Your task to perform on an android device: search for starred emails in the gmail app Image 0: 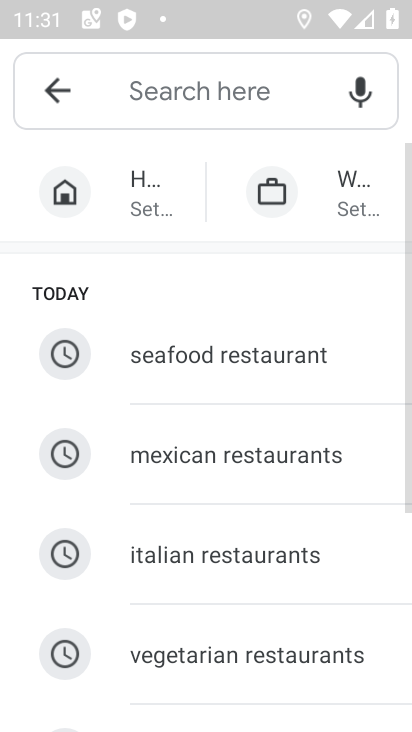
Step 0: click (46, 90)
Your task to perform on an android device: search for starred emails in the gmail app Image 1: 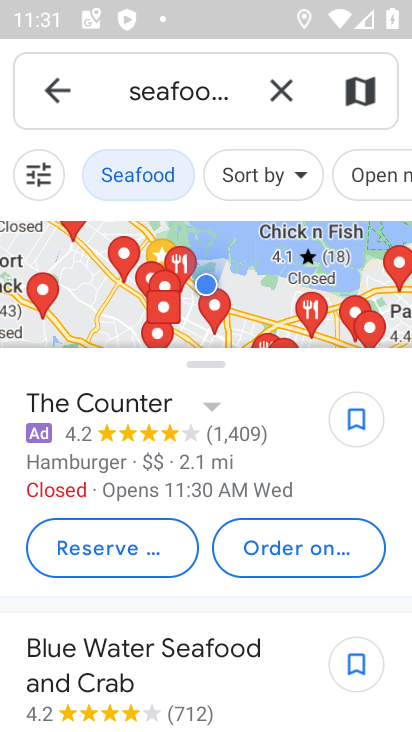
Step 1: press back button
Your task to perform on an android device: search for starred emails in the gmail app Image 2: 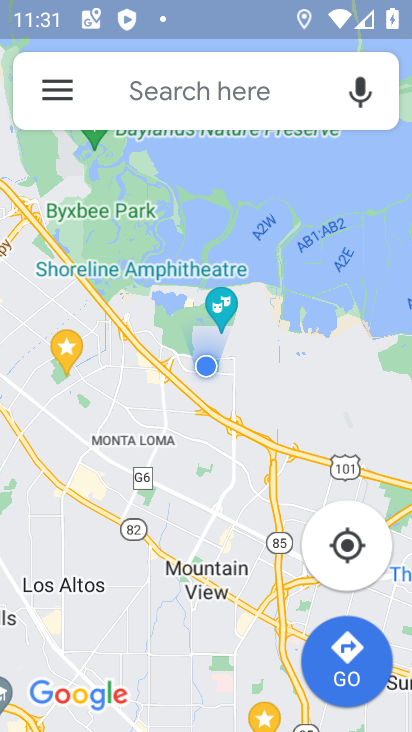
Step 2: press back button
Your task to perform on an android device: search for starred emails in the gmail app Image 3: 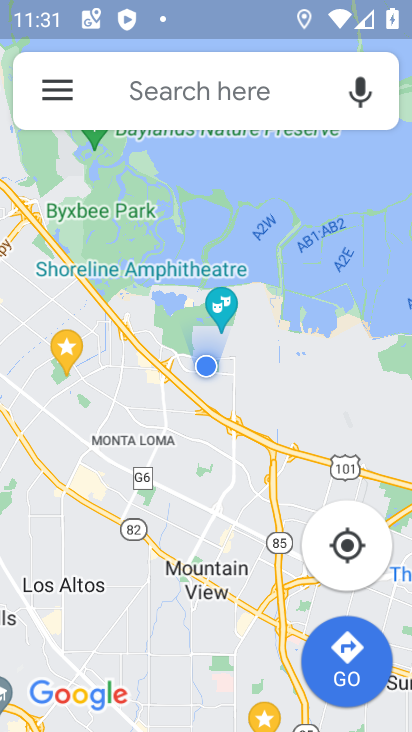
Step 3: press back button
Your task to perform on an android device: search for starred emails in the gmail app Image 4: 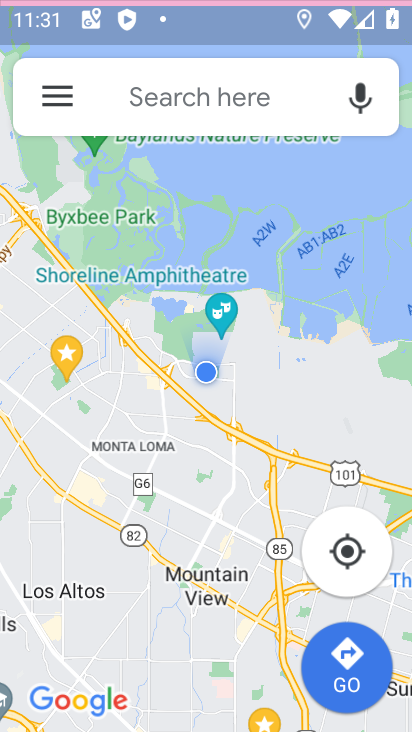
Step 4: press home button
Your task to perform on an android device: search for starred emails in the gmail app Image 5: 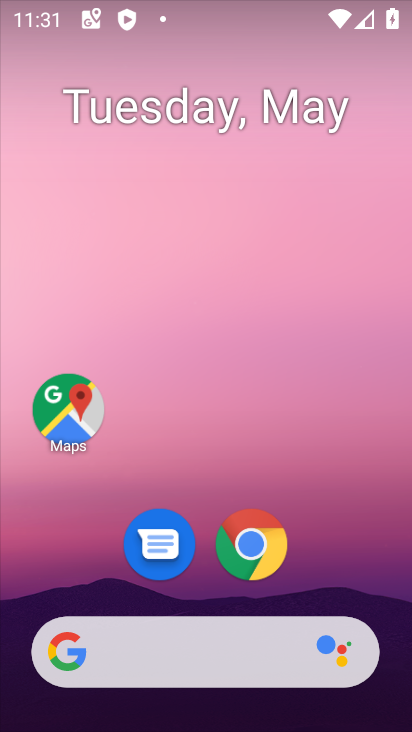
Step 5: press home button
Your task to perform on an android device: search for starred emails in the gmail app Image 6: 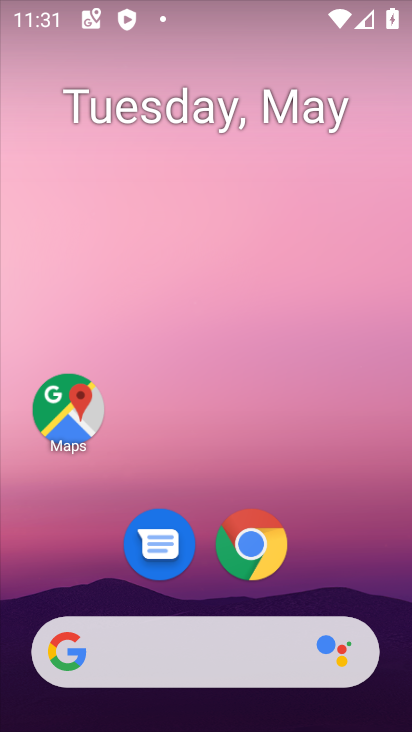
Step 6: drag from (334, 613) to (114, 63)
Your task to perform on an android device: search for starred emails in the gmail app Image 7: 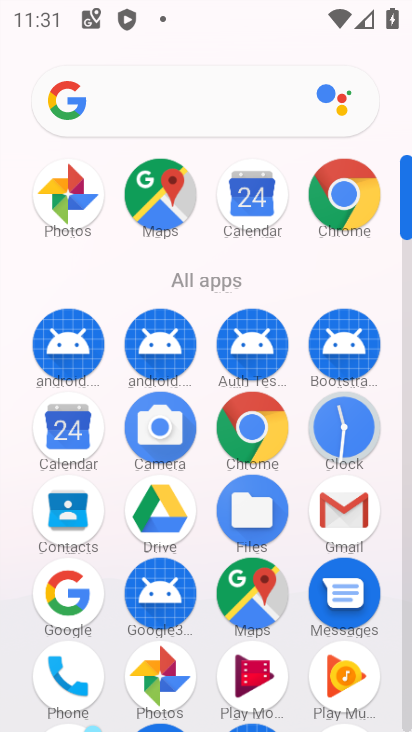
Step 7: click (339, 505)
Your task to perform on an android device: search for starred emails in the gmail app Image 8: 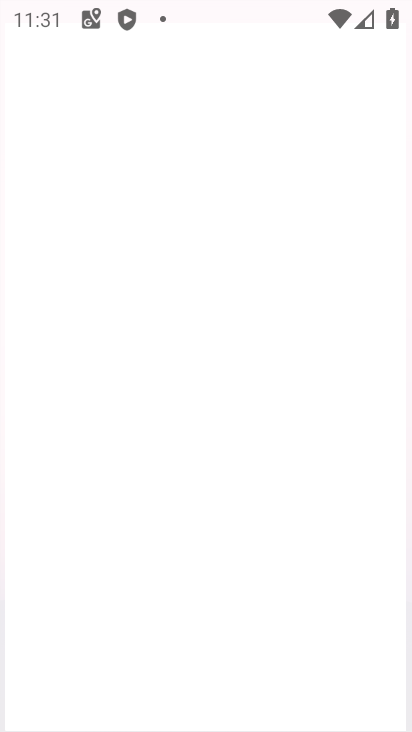
Step 8: click (345, 501)
Your task to perform on an android device: search for starred emails in the gmail app Image 9: 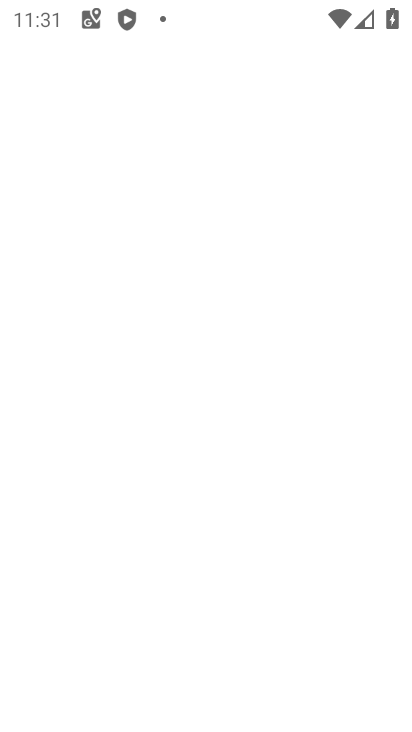
Step 9: click (345, 501)
Your task to perform on an android device: search for starred emails in the gmail app Image 10: 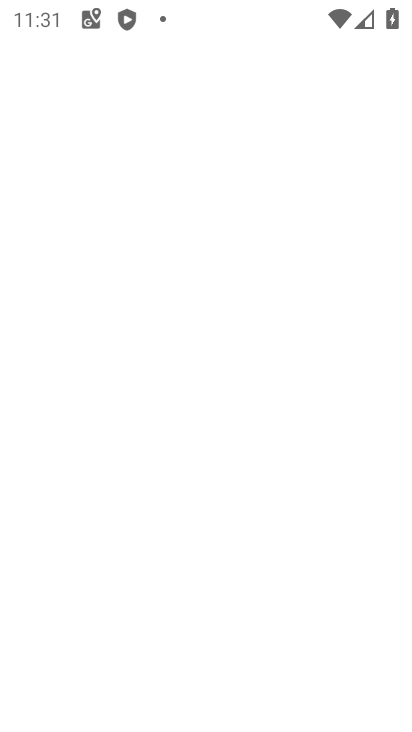
Step 10: click (345, 501)
Your task to perform on an android device: search for starred emails in the gmail app Image 11: 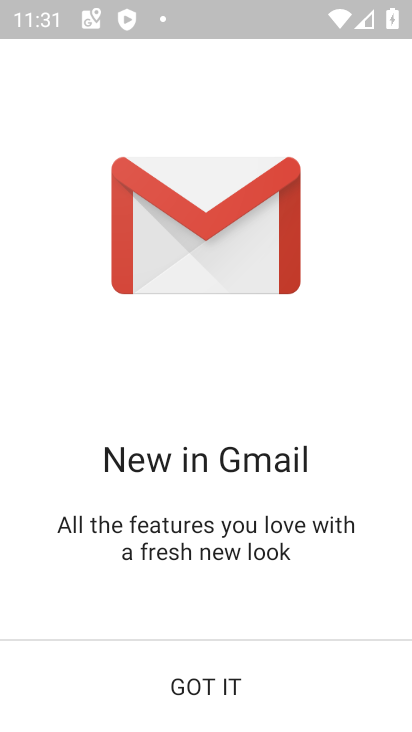
Step 11: click (207, 685)
Your task to perform on an android device: search for starred emails in the gmail app Image 12: 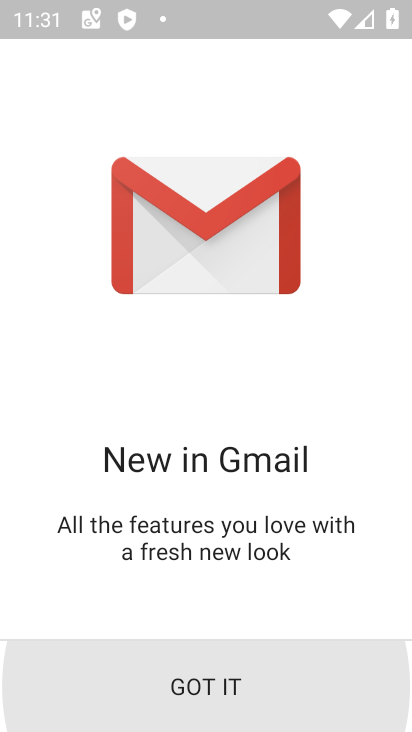
Step 12: click (206, 684)
Your task to perform on an android device: search for starred emails in the gmail app Image 13: 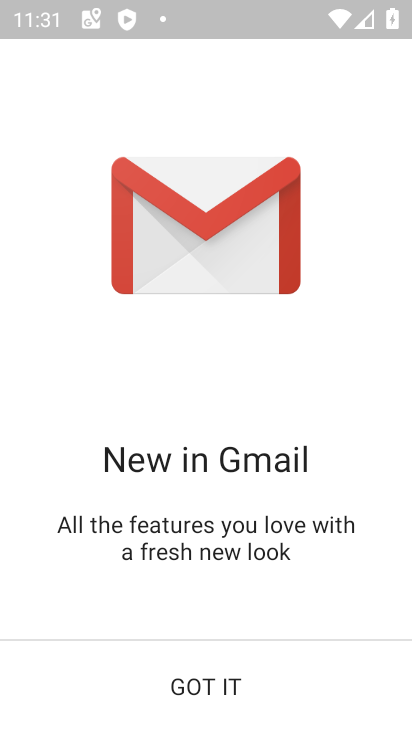
Step 13: click (211, 684)
Your task to perform on an android device: search for starred emails in the gmail app Image 14: 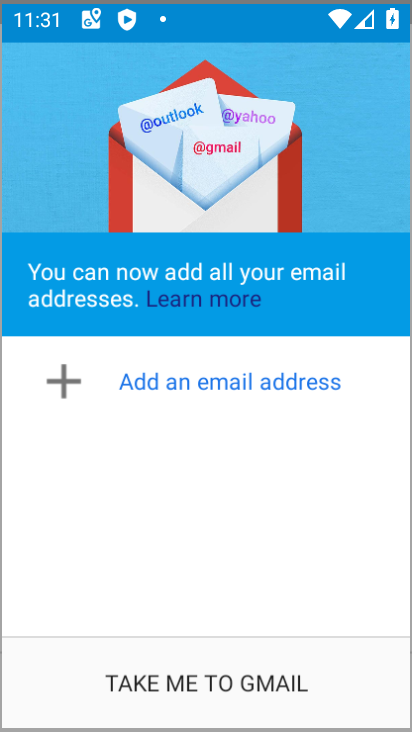
Step 14: click (211, 684)
Your task to perform on an android device: search for starred emails in the gmail app Image 15: 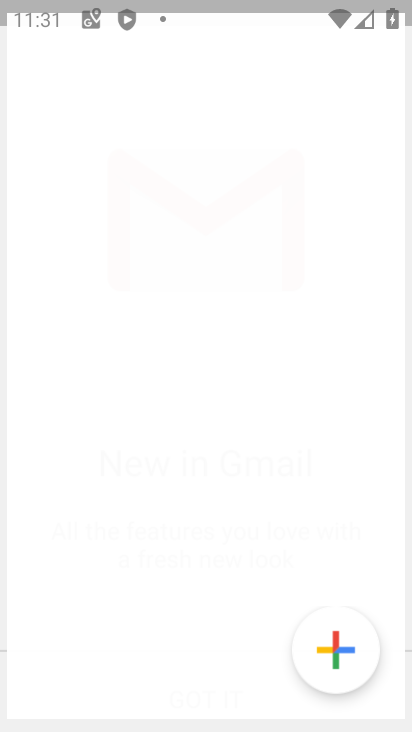
Step 15: click (211, 684)
Your task to perform on an android device: search for starred emails in the gmail app Image 16: 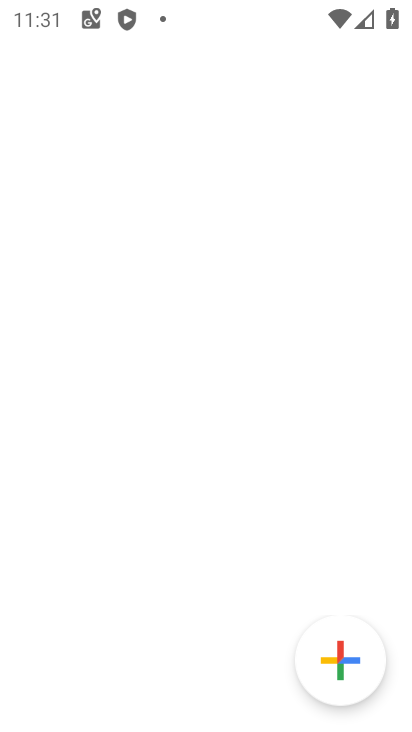
Step 16: click (211, 684)
Your task to perform on an android device: search for starred emails in the gmail app Image 17: 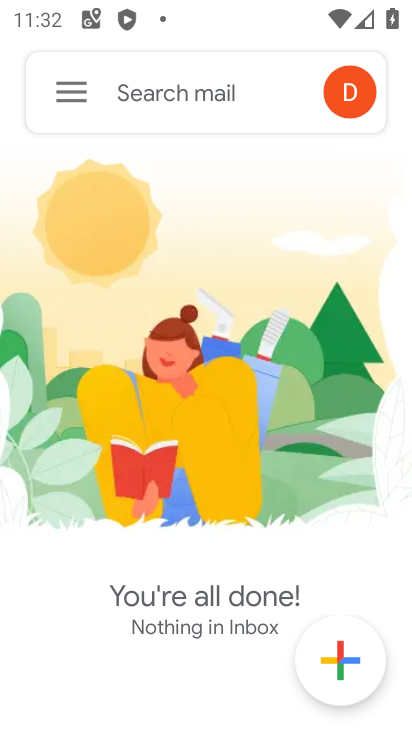
Step 17: press back button
Your task to perform on an android device: search for starred emails in the gmail app Image 18: 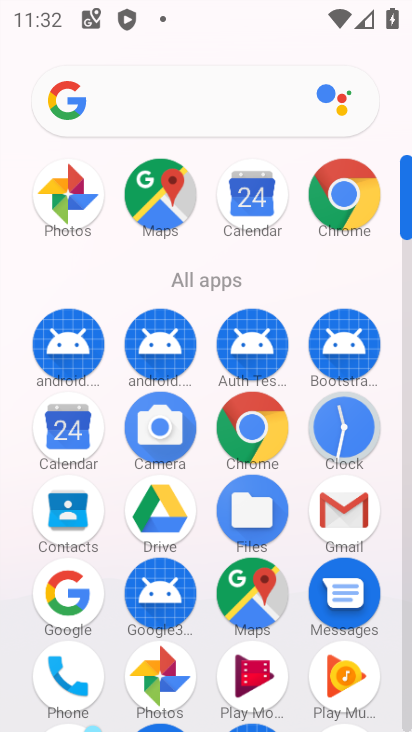
Step 18: click (333, 504)
Your task to perform on an android device: search for starred emails in the gmail app Image 19: 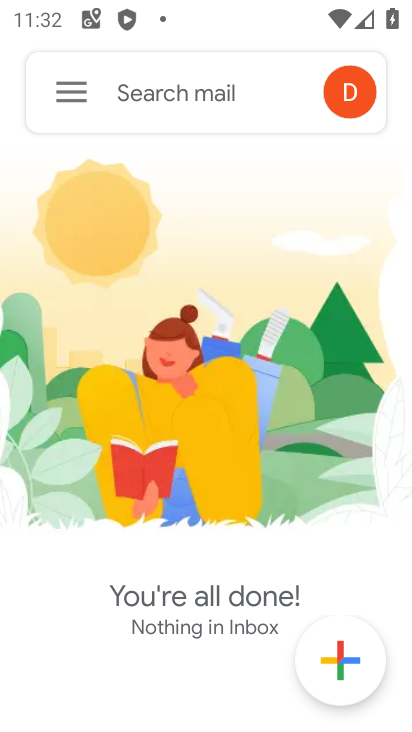
Step 19: click (336, 499)
Your task to perform on an android device: search for starred emails in the gmail app Image 20: 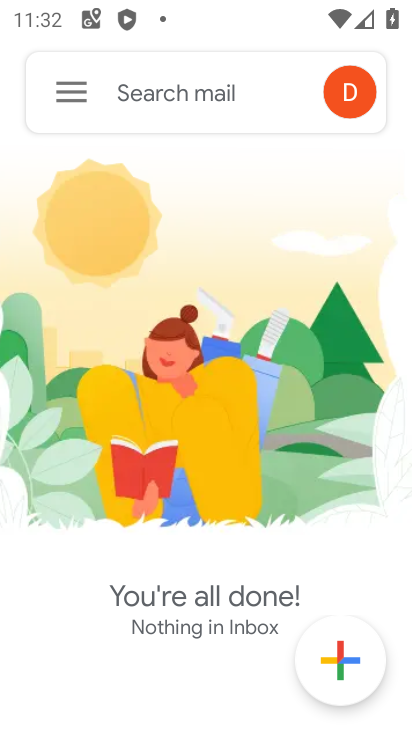
Step 20: press back button
Your task to perform on an android device: search for starred emails in the gmail app Image 21: 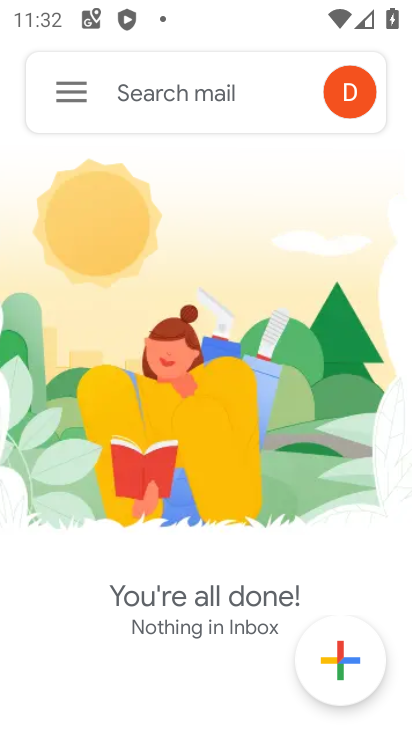
Step 21: press back button
Your task to perform on an android device: search for starred emails in the gmail app Image 22: 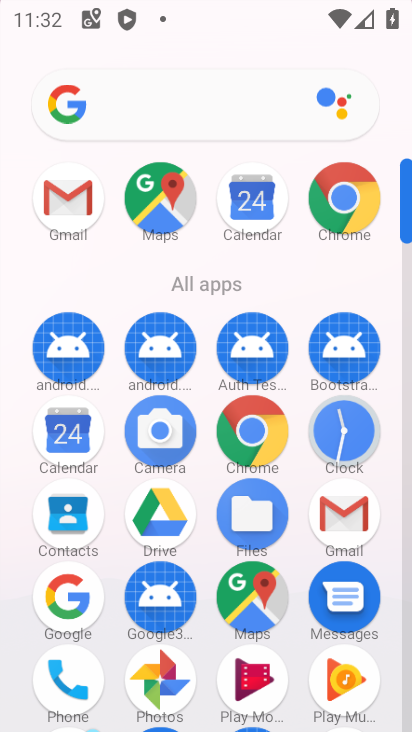
Step 22: press back button
Your task to perform on an android device: search for starred emails in the gmail app Image 23: 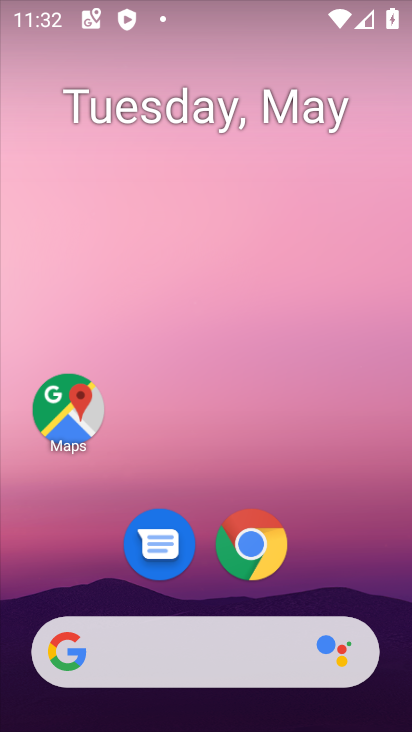
Step 23: drag from (340, 510) to (242, 47)
Your task to perform on an android device: search for starred emails in the gmail app Image 24: 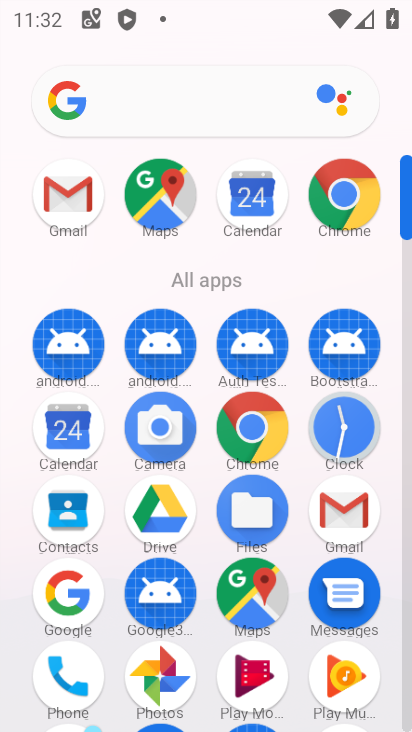
Step 24: click (342, 511)
Your task to perform on an android device: search for starred emails in the gmail app Image 25: 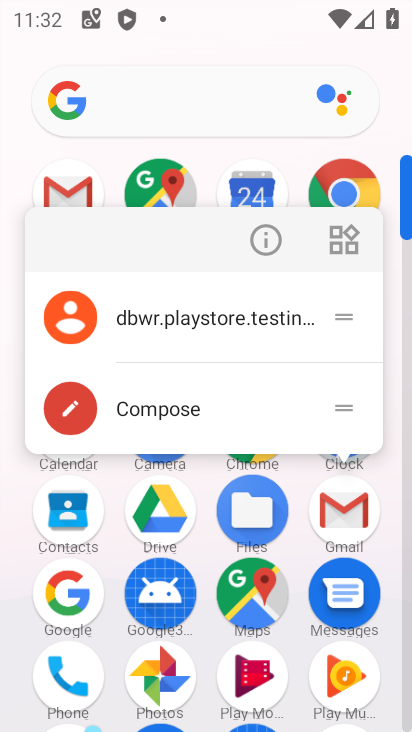
Step 25: click (345, 504)
Your task to perform on an android device: search for starred emails in the gmail app Image 26: 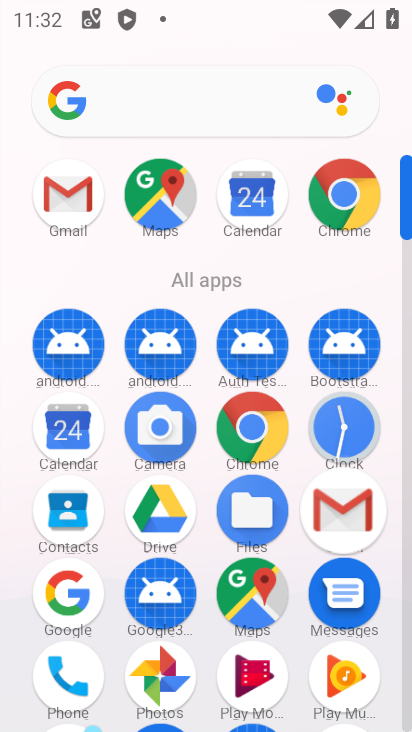
Step 26: click (345, 504)
Your task to perform on an android device: search for starred emails in the gmail app Image 27: 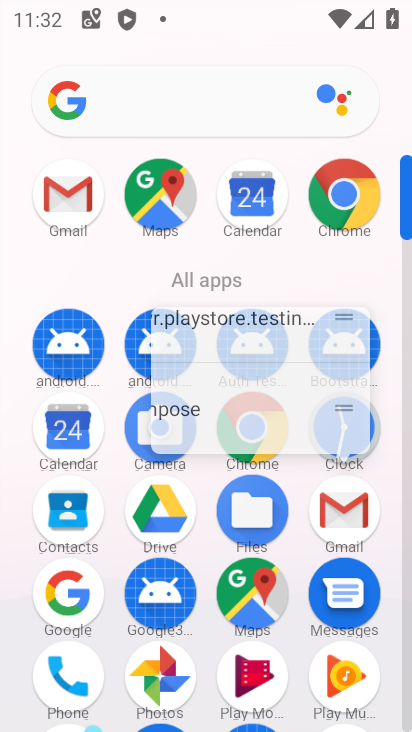
Step 27: click (345, 504)
Your task to perform on an android device: search for starred emails in the gmail app Image 28: 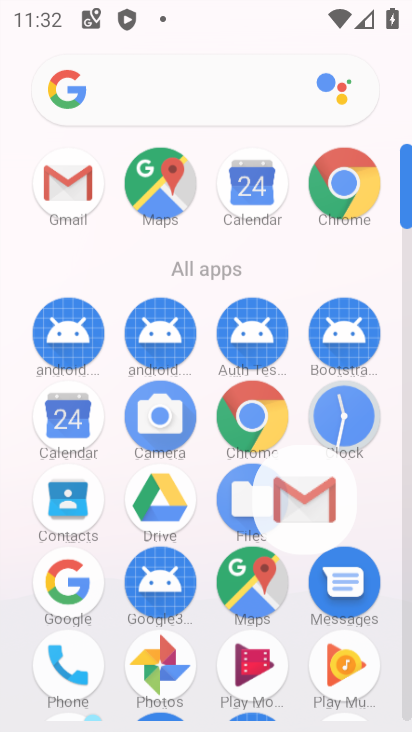
Step 28: click (346, 504)
Your task to perform on an android device: search for starred emails in the gmail app Image 29: 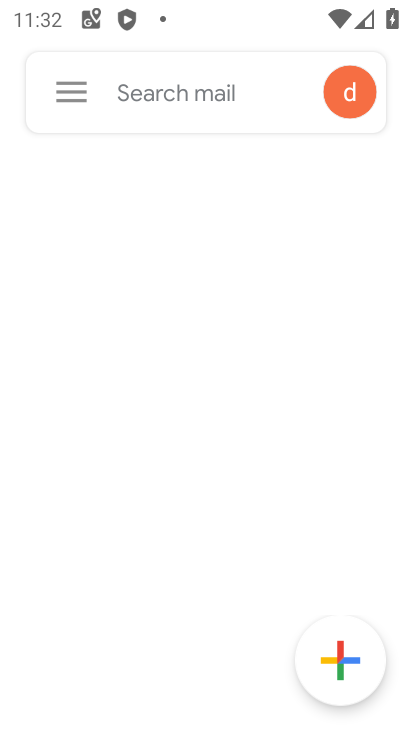
Step 29: click (347, 504)
Your task to perform on an android device: search for starred emails in the gmail app Image 30: 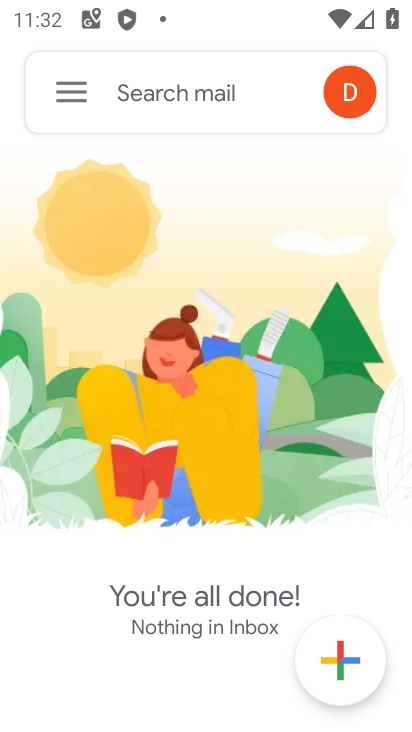
Step 30: click (347, 504)
Your task to perform on an android device: search for starred emails in the gmail app Image 31: 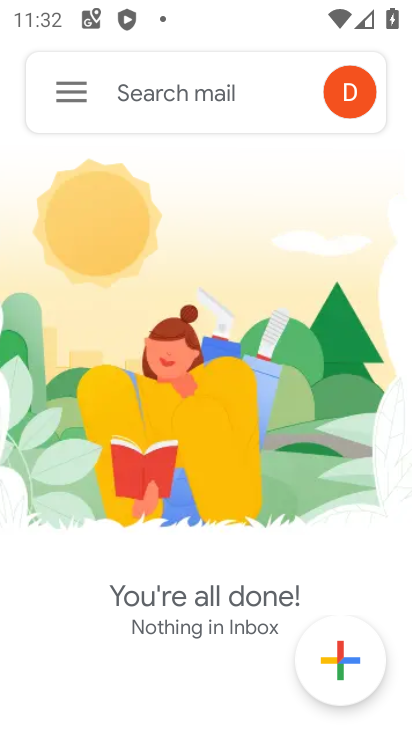
Step 31: click (68, 89)
Your task to perform on an android device: search for starred emails in the gmail app Image 32: 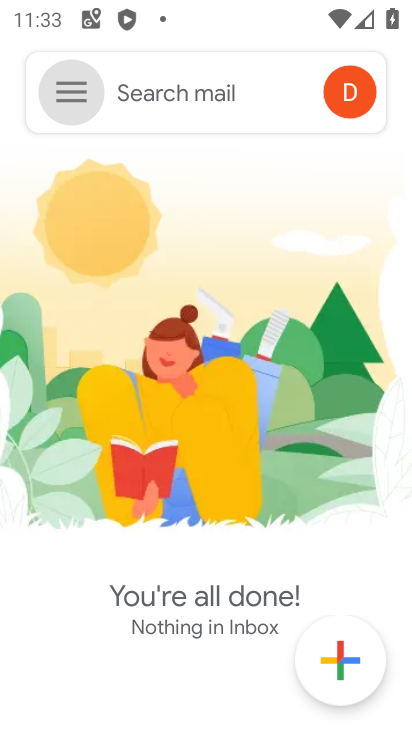
Step 32: click (68, 90)
Your task to perform on an android device: search for starred emails in the gmail app Image 33: 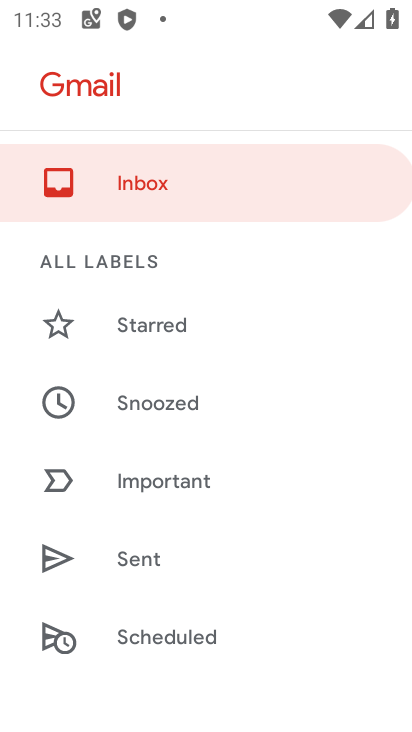
Step 33: click (158, 312)
Your task to perform on an android device: search for starred emails in the gmail app Image 34: 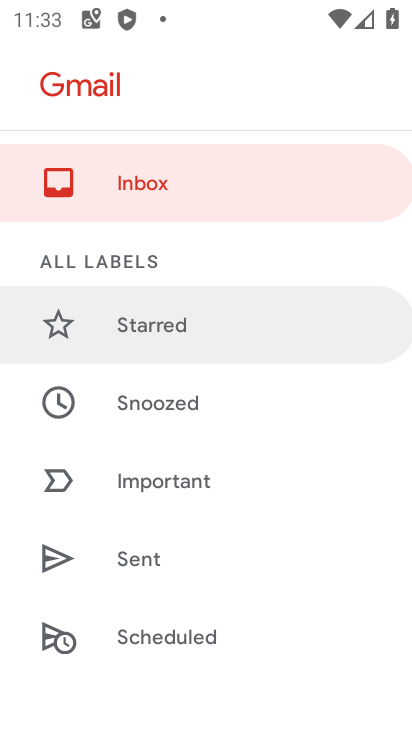
Step 34: click (163, 321)
Your task to perform on an android device: search for starred emails in the gmail app Image 35: 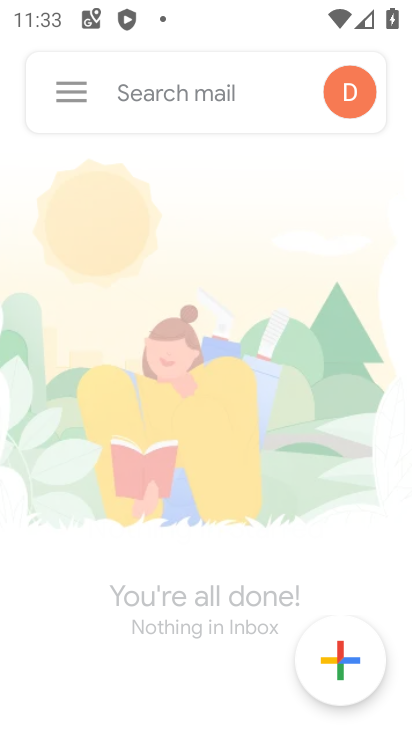
Step 35: click (163, 321)
Your task to perform on an android device: search for starred emails in the gmail app Image 36: 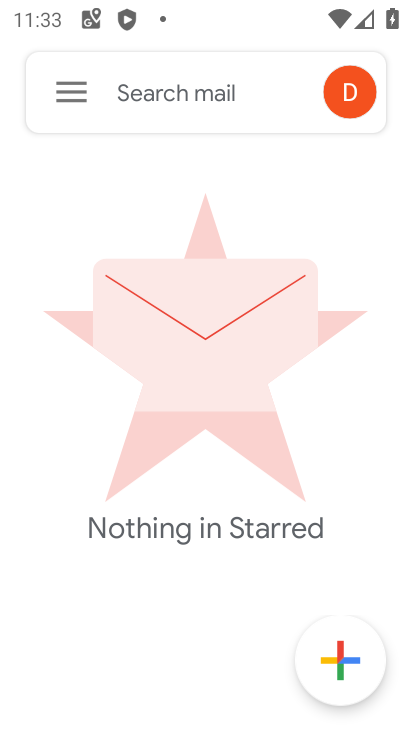
Step 36: task complete